Your task to perform on an android device: Turn off the flashlight Image 0: 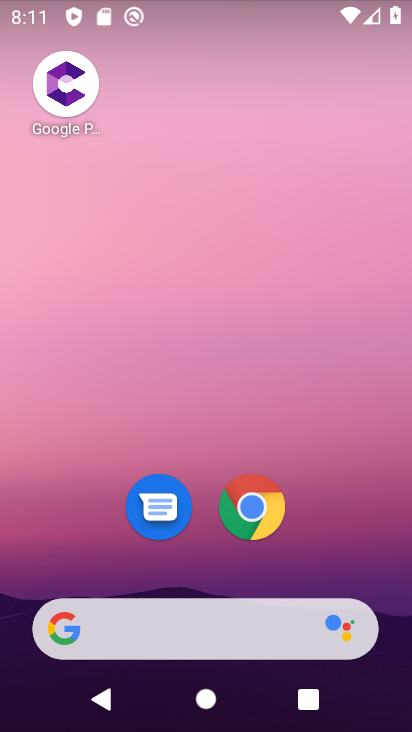
Step 0: drag from (208, 583) to (202, 3)
Your task to perform on an android device: Turn off the flashlight Image 1: 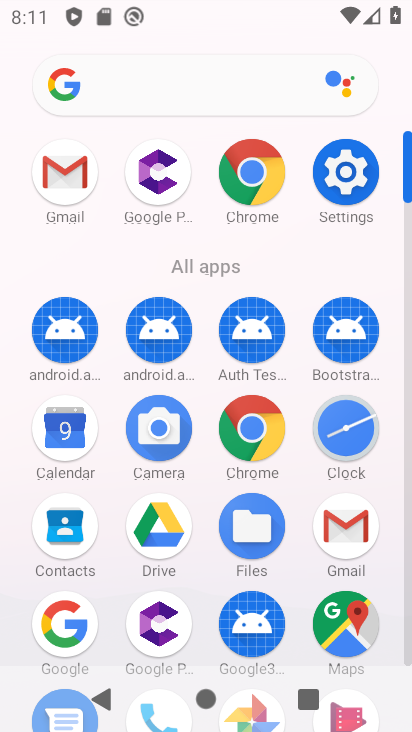
Step 1: click (360, 160)
Your task to perform on an android device: Turn off the flashlight Image 2: 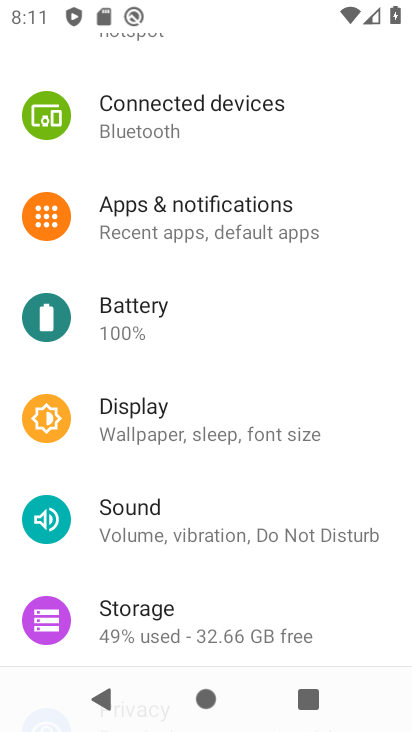
Step 2: drag from (342, 150) to (322, 586)
Your task to perform on an android device: Turn off the flashlight Image 3: 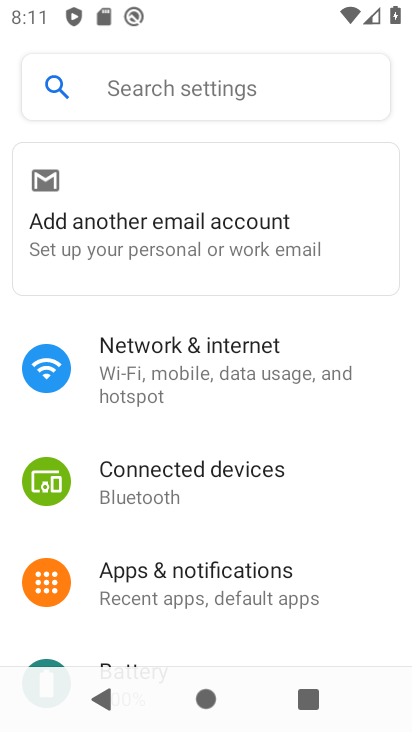
Step 3: click (273, 98)
Your task to perform on an android device: Turn off the flashlight Image 4: 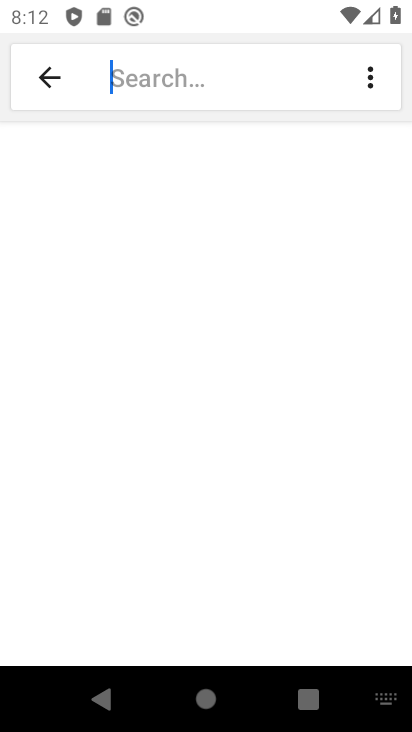
Step 4: type "flashlight"
Your task to perform on an android device: Turn off the flashlight Image 5: 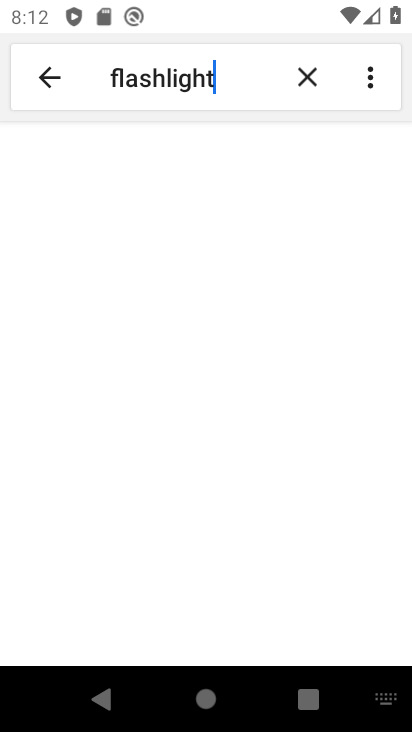
Step 5: task complete